Your task to perform on an android device: move an email to a new category in the gmail app Image 0: 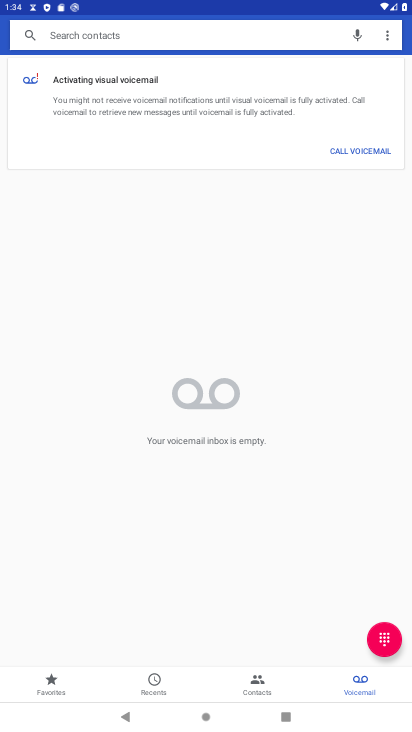
Step 0: press home button
Your task to perform on an android device: move an email to a new category in the gmail app Image 1: 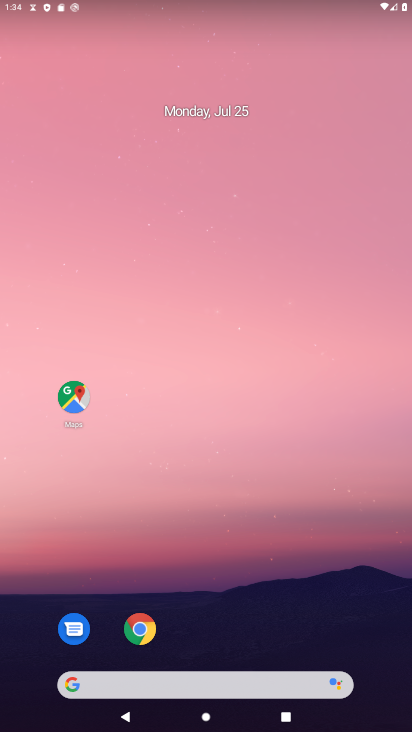
Step 1: drag from (314, 624) to (246, 0)
Your task to perform on an android device: move an email to a new category in the gmail app Image 2: 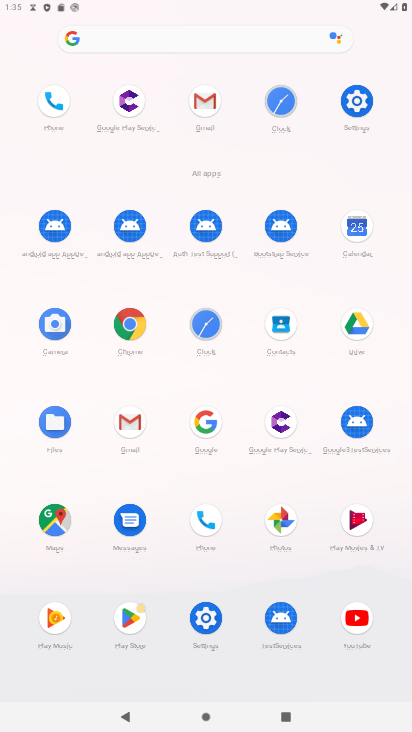
Step 2: click (199, 100)
Your task to perform on an android device: move an email to a new category in the gmail app Image 3: 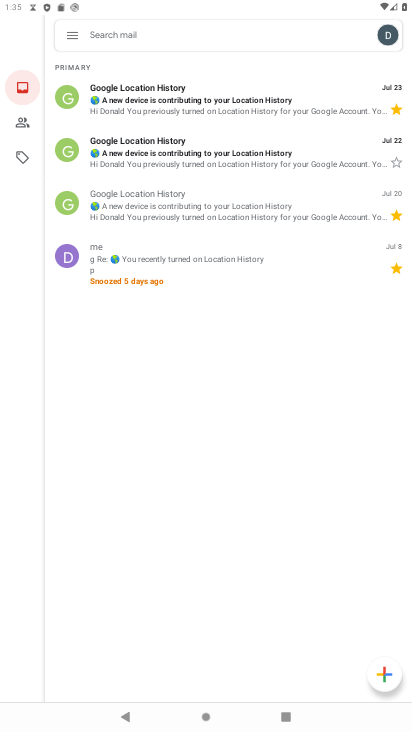
Step 3: click (298, 104)
Your task to perform on an android device: move an email to a new category in the gmail app Image 4: 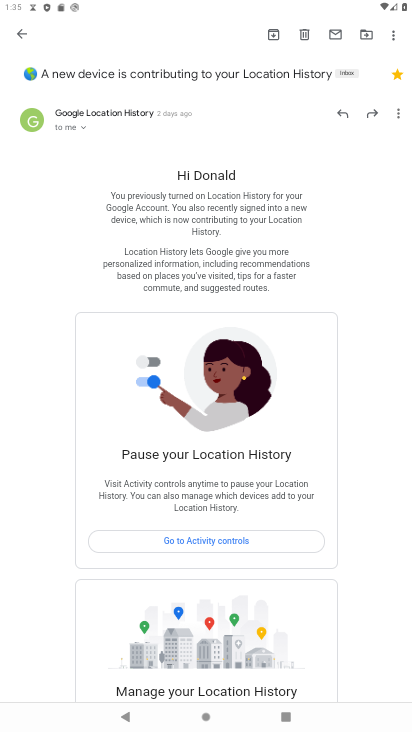
Step 4: click (397, 76)
Your task to perform on an android device: move an email to a new category in the gmail app Image 5: 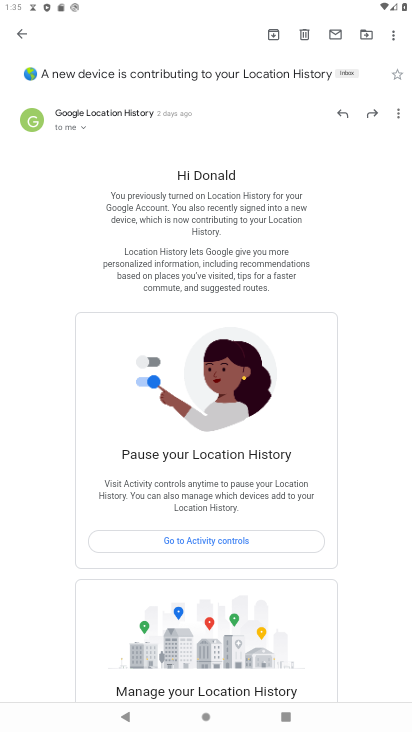
Step 5: task complete